Your task to perform on an android device: When is my next meeting? Image 0: 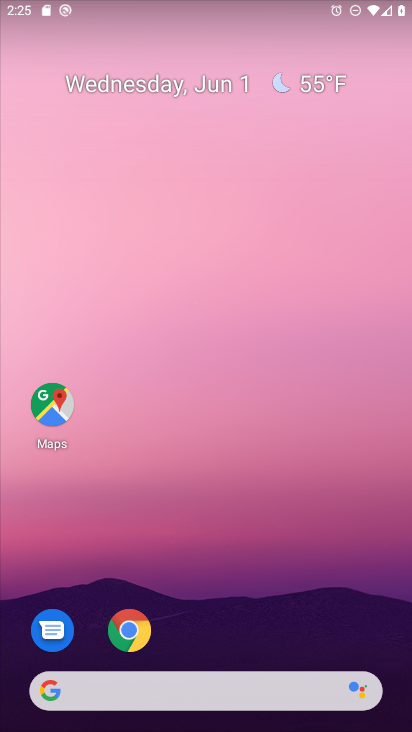
Step 0: drag from (145, 676) to (188, 3)
Your task to perform on an android device: When is my next meeting? Image 1: 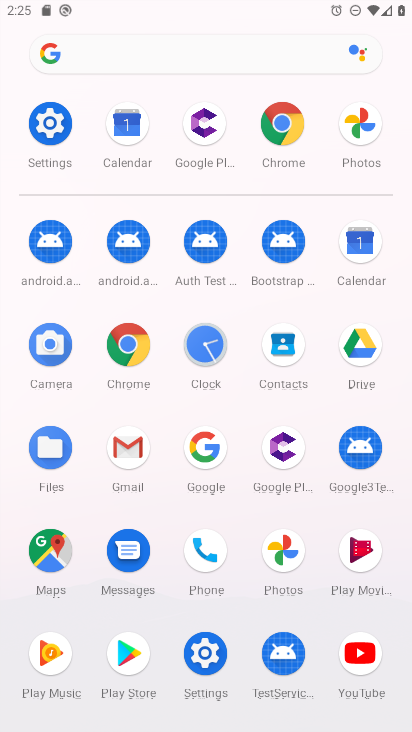
Step 1: click (359, 261)
Your task to perform on an android device: When is my next meeting? Image 2: 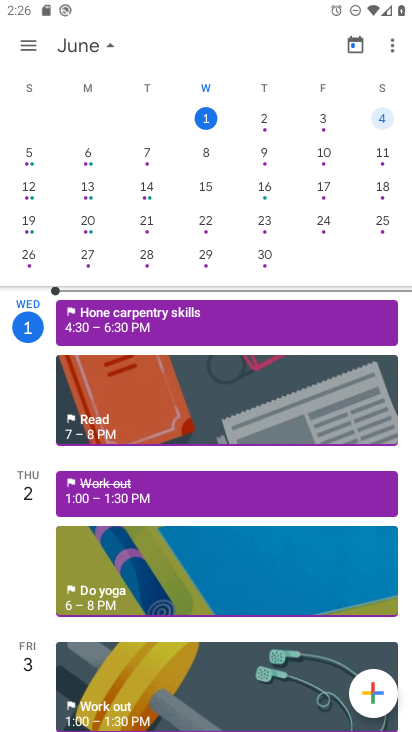
Step 2: click (204, 118)
Your task to perform on an android device: When is my next meeting? Image 3: 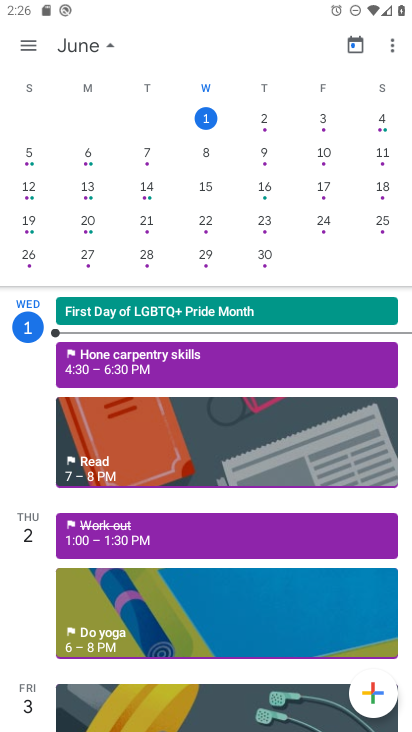
Step 3: task complete